Your task to perform on an android device: open app "Move to iOS" (install if not already installed) Image 0: 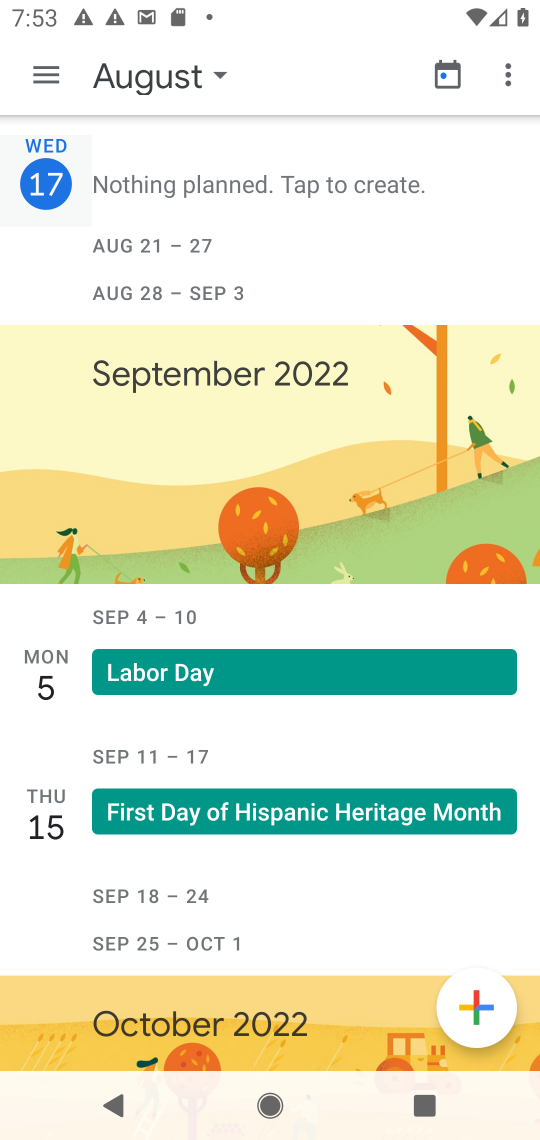
Step 0: press home button
Your task to perform on an android device: open app "Move to iOS" (install if not already installed) Image 1: 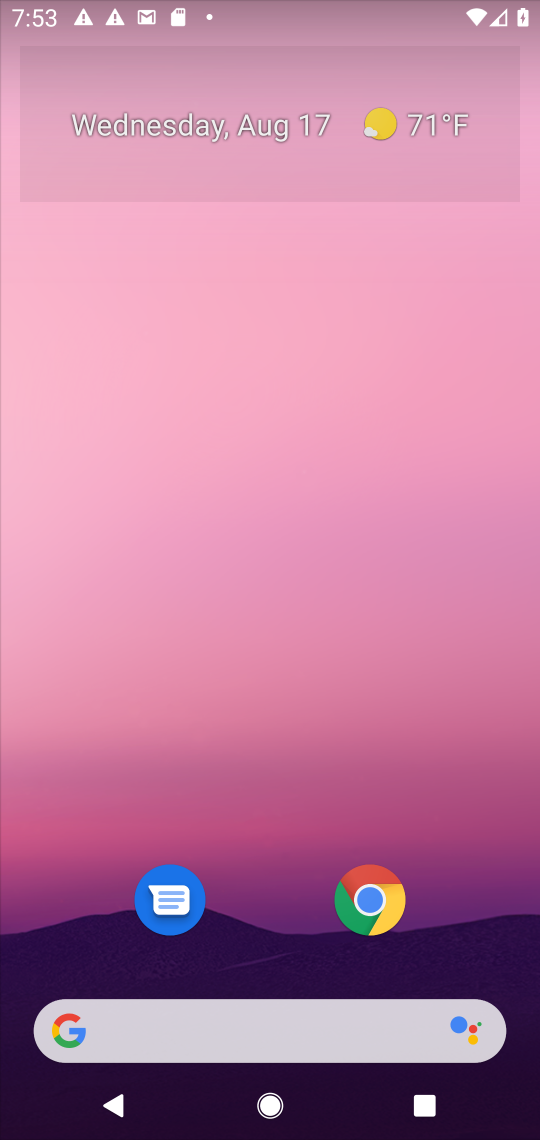
Step 1: drag from (249, 950) to (419, 1)
Your task to perform on an android device: open app "Move to iOS" (install if not already installed) Image 2: 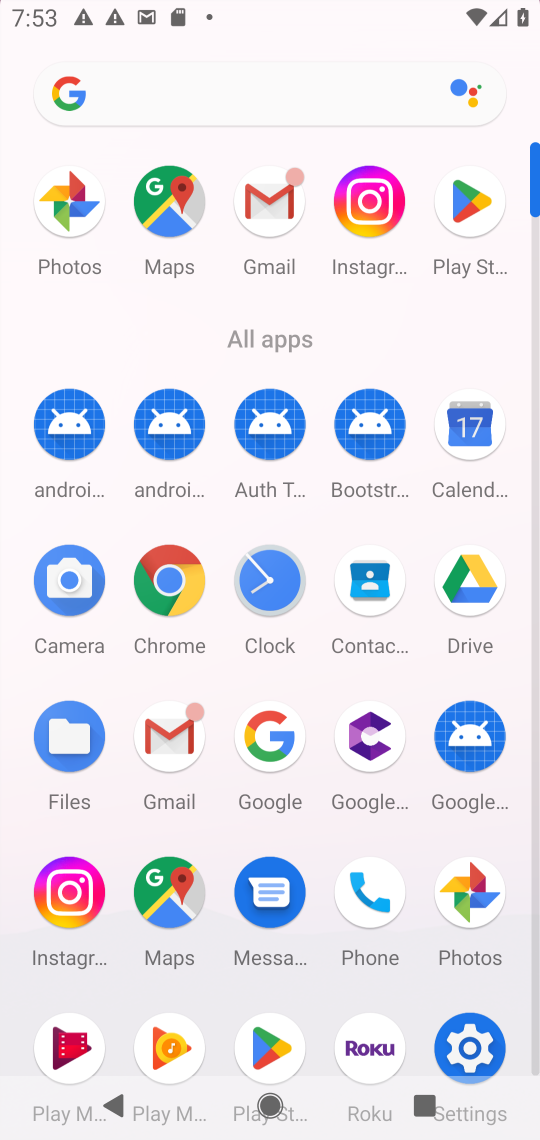
Step 2: click (461, 202)
Your task to perform on an android device: open app "Move to iOS" (install if not already installed) Image 3: 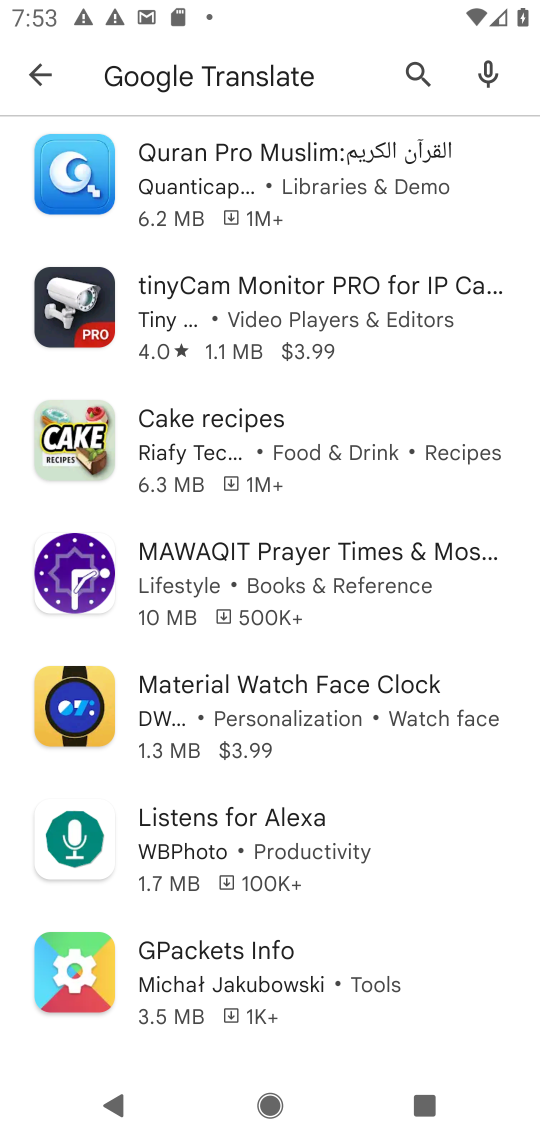
Step 3: click (29, 58)
Your task to perform on an android device: open app "Move to iOS" (install if not already installed) Image 4: 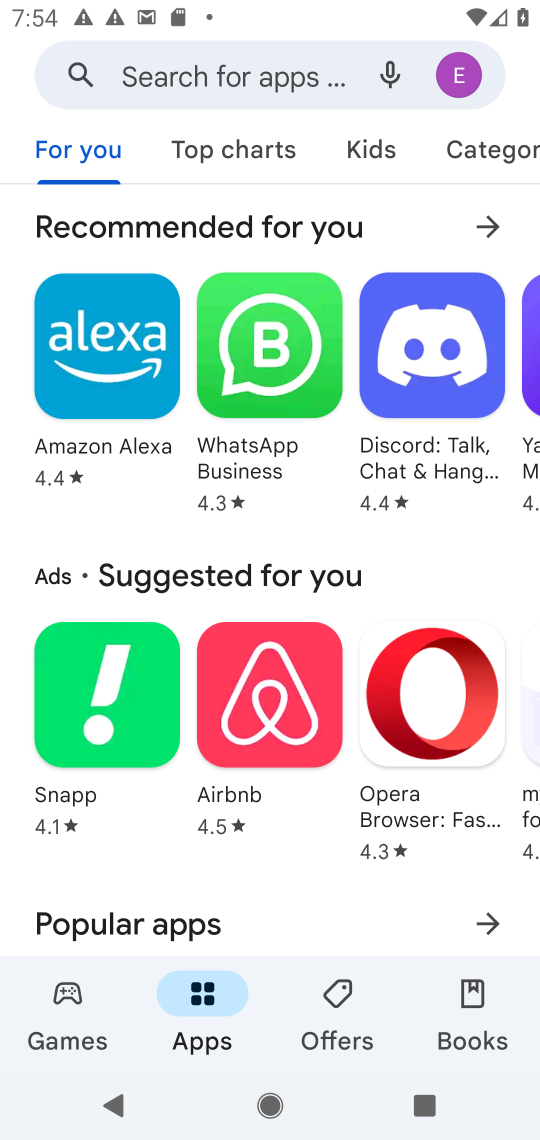
Step 4: click (298, 75)
Your task to perform on an android device: open app "Move to iOS" (install if not already installed) Image 5: 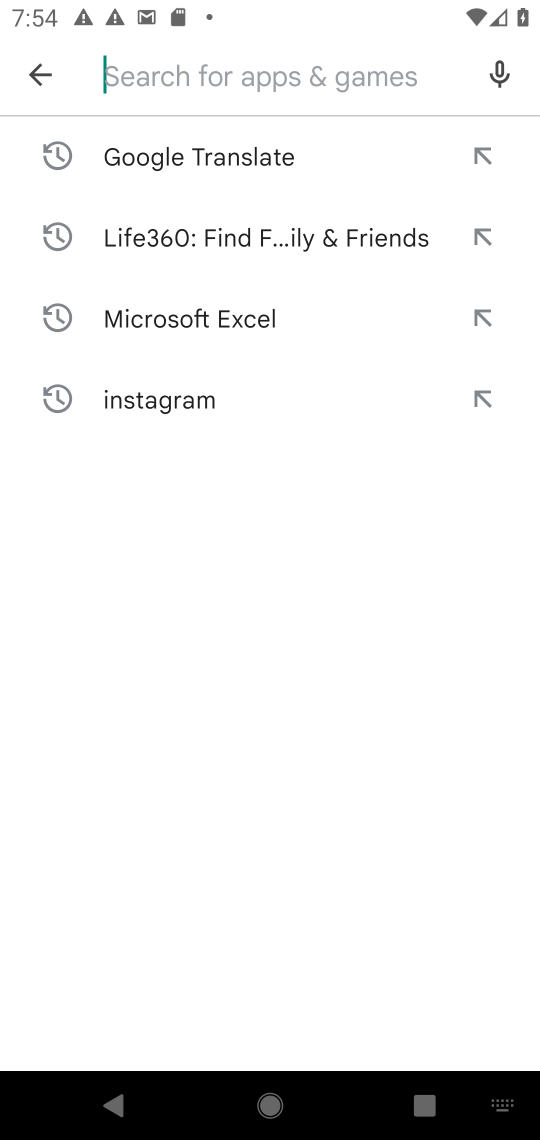
Step 5: type ""Move to iOS"
Your task to perform on an android device: open app "Move to iOS" (install if not already installed) Image 6: 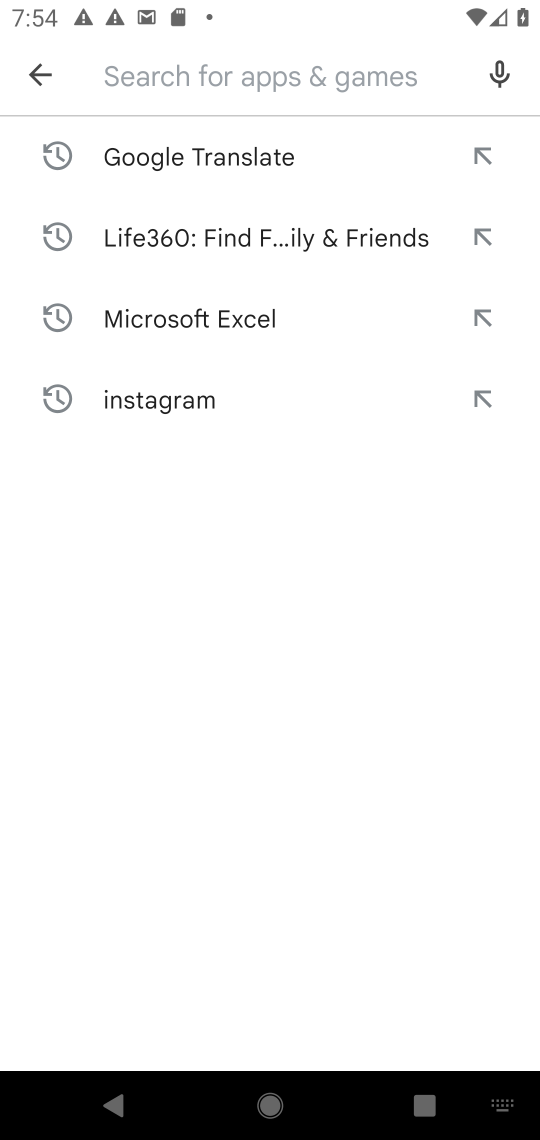
Step 6: press enter
Your task to perform on an android device: open app "Move to iOS" (install if not already installed) Image 7: 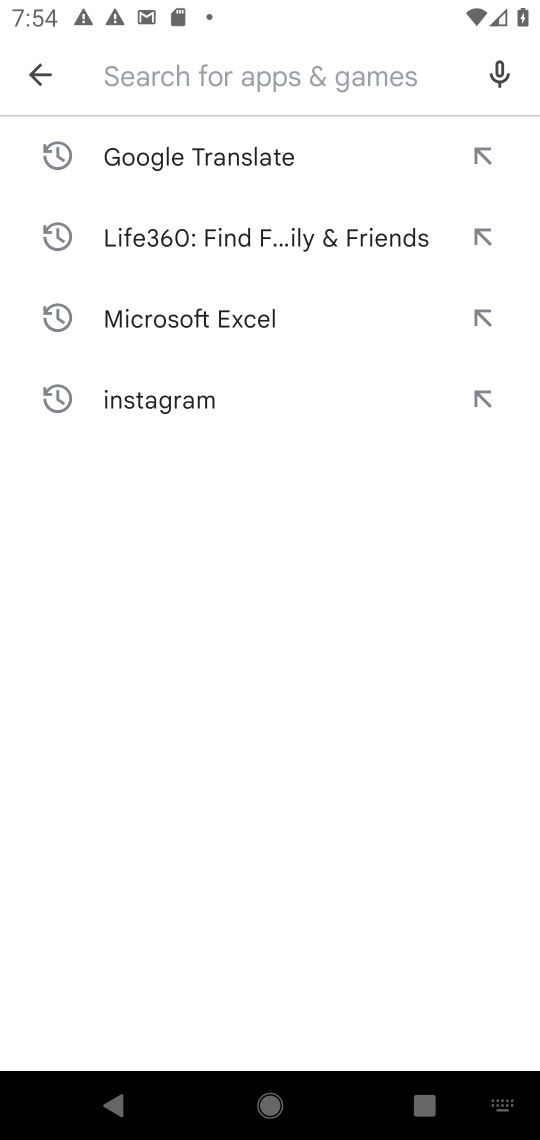
Step 7: type "Move to iOS"
Your task to perform on an android device: open app "Move to iOS" (install if not already installed) Image 8: 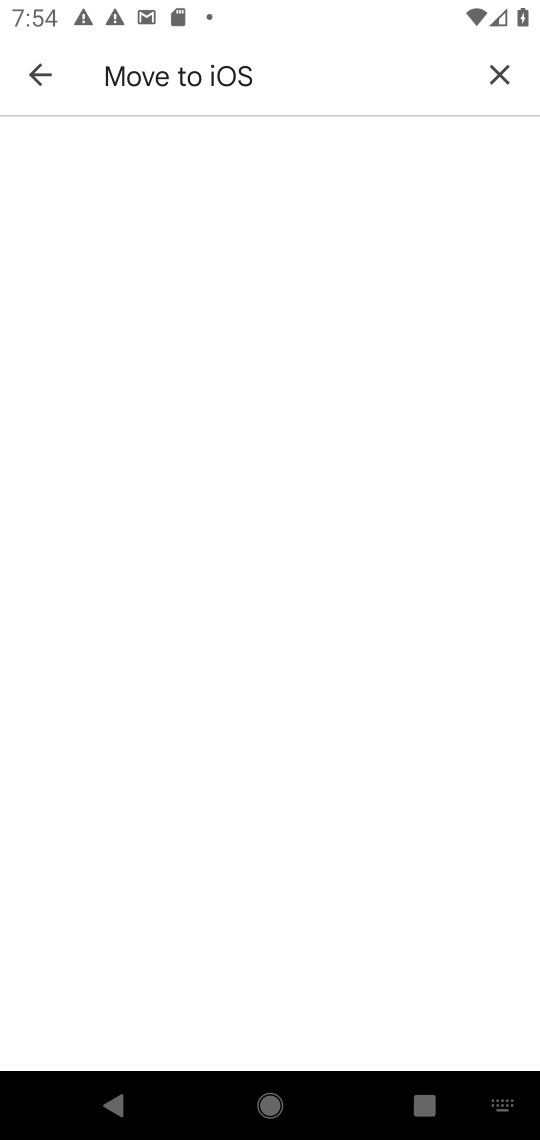
Step 8: press enter
Your task to perform on an android device: open app "Move to iOS" (install if not already installed) Image 9: 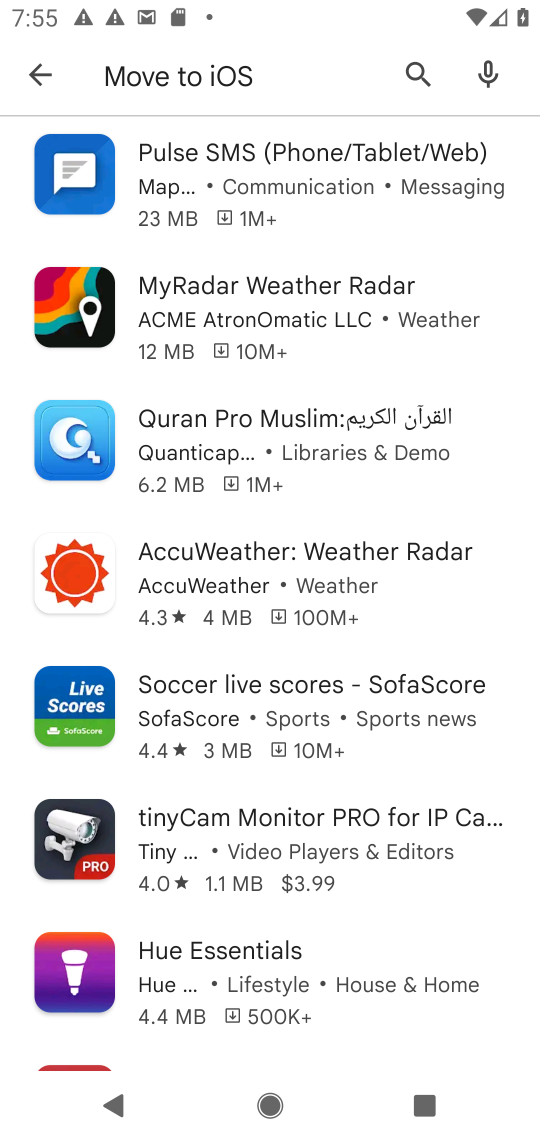
Step 9: task complete